Your task to perform on an android device: check out phone information Image 0: 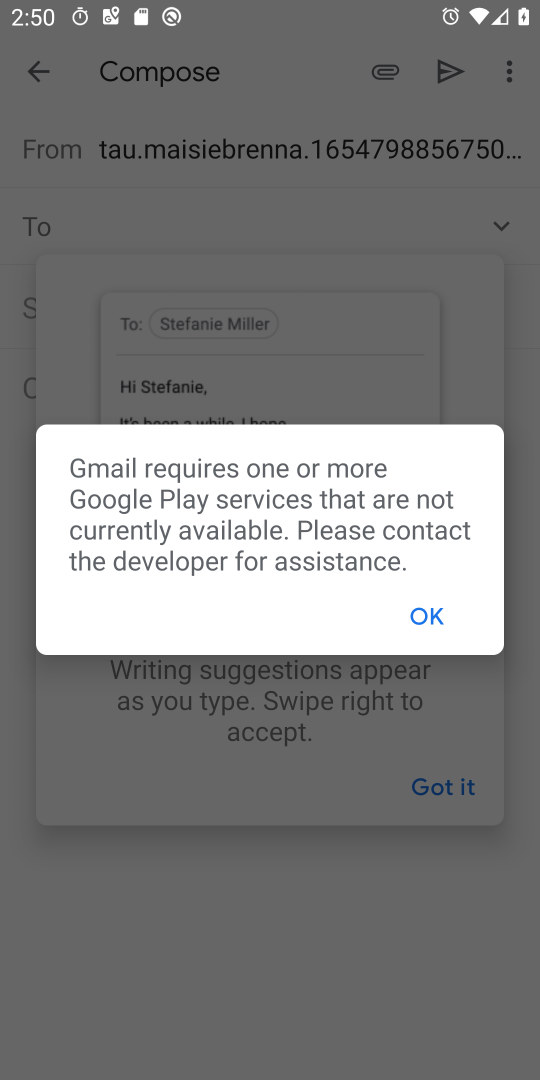
Step 0: press home button
Your task to perform on an android device: check out phone information Image 1: 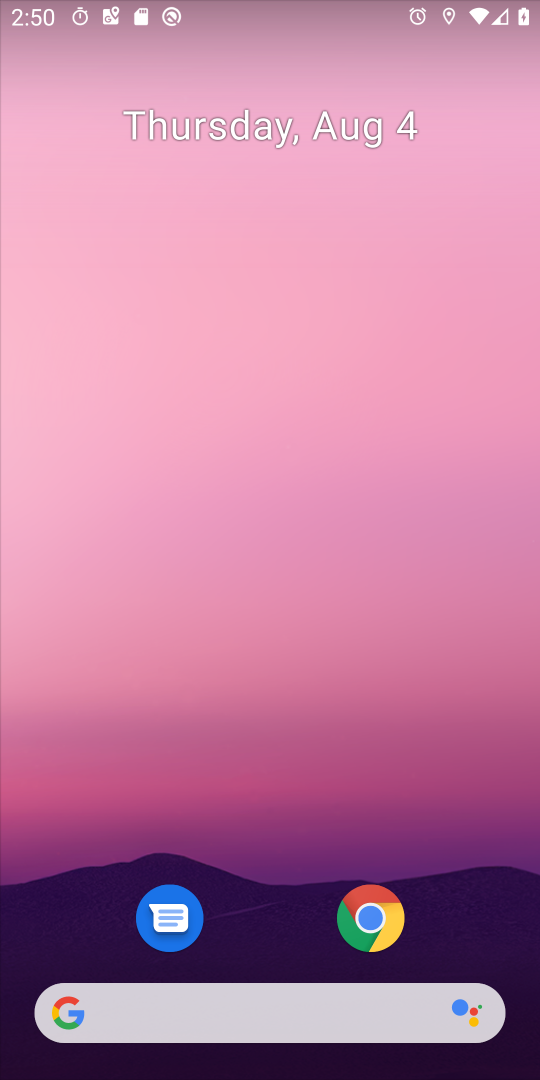
Step 1: drag from (258, 842) to (258, 245)
Your task to perform on an android device: check out phone information Image 2: 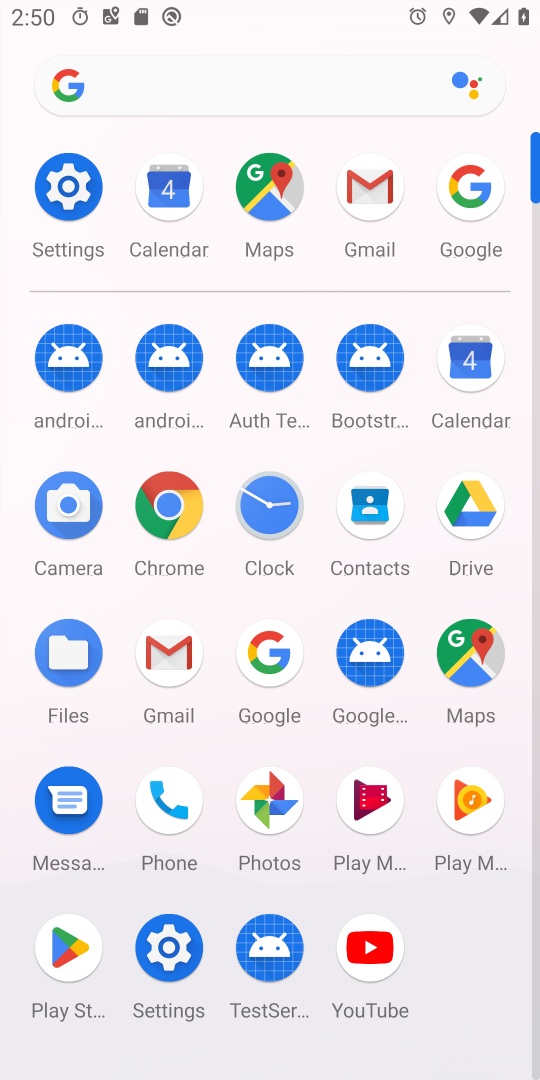
Step 2: click (73, 195)
Your task to perform on an android device: check out phone information Image 3: 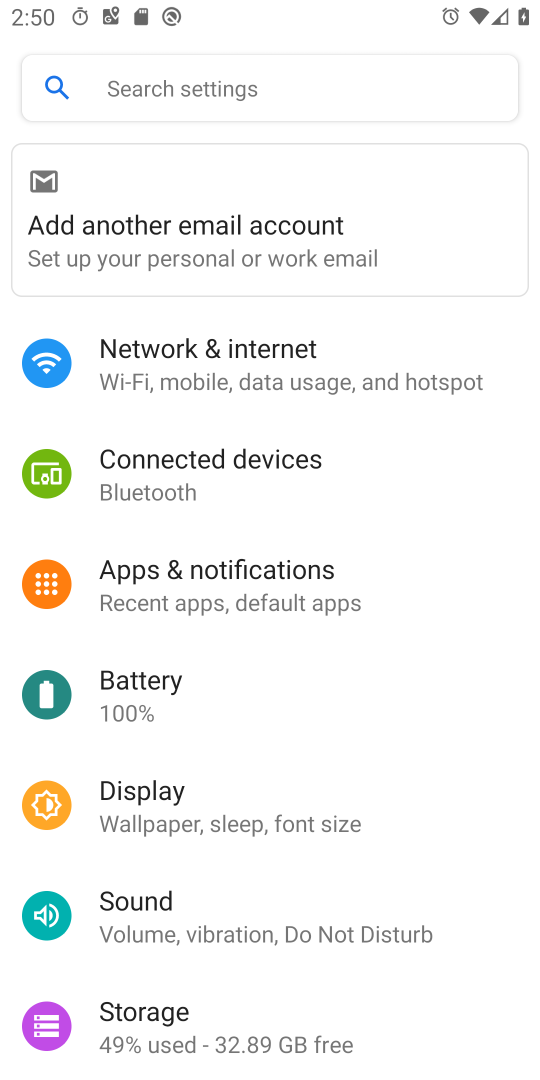
Step 3: drag from (296, 1023) to (269, 399)
Your task to perform on an android device: check out phone information Image 4: 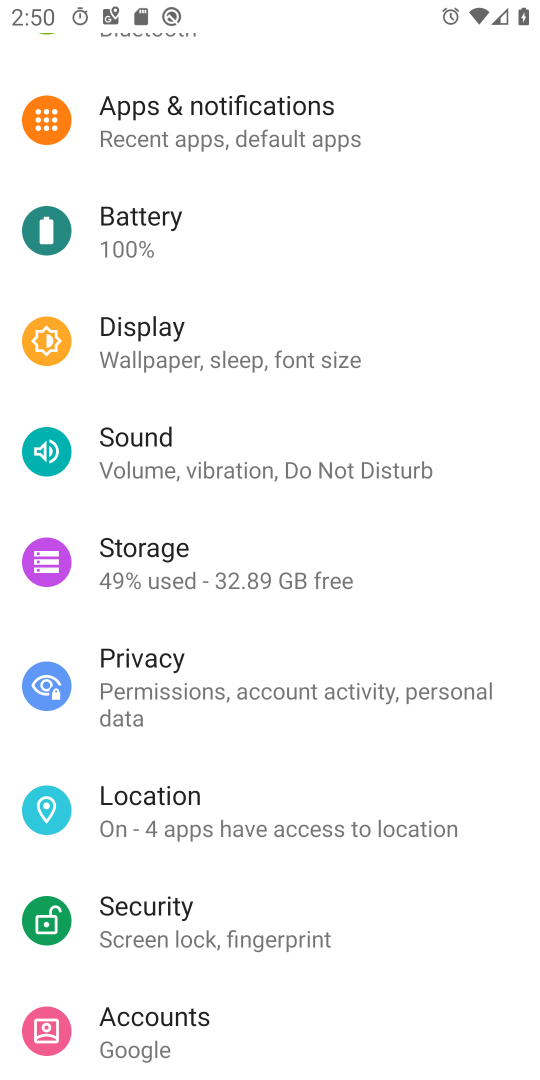
Step 4: drag from (265, 984) to (255, 422)
Your task to perform on an android device: check out phone information Image 5: 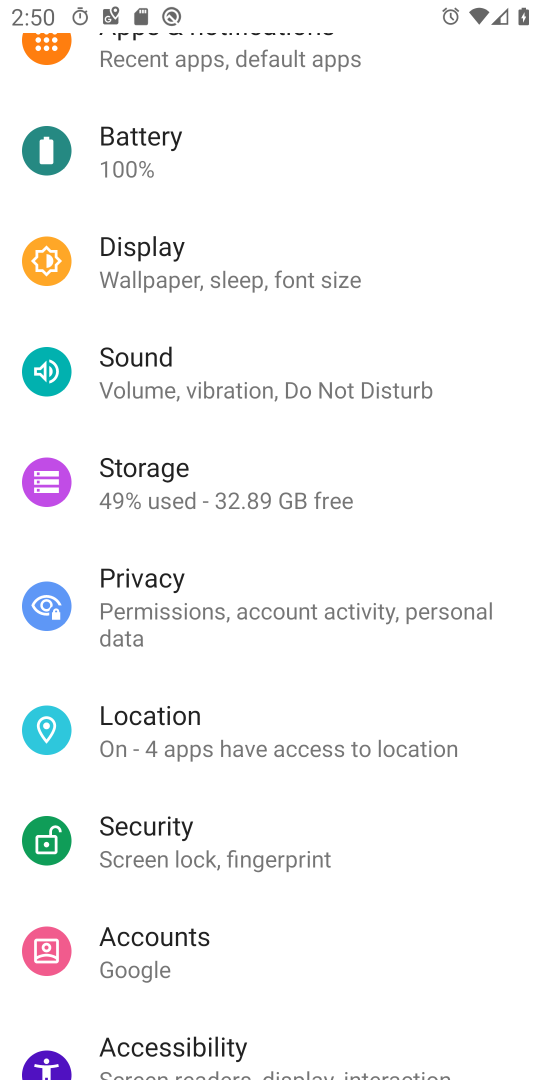
Step 5: drag from (244, 866) to (244, 376)
Your task to perform on an android device: check out phone information Image 6: 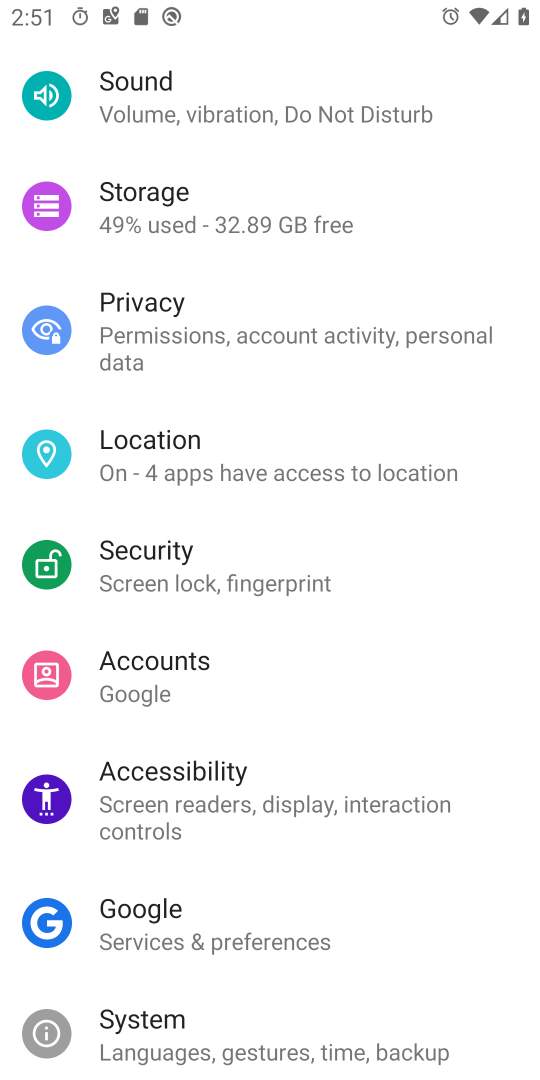
Step 6: drag from (225, 924) to (231, 337)
Your task to perform on an android device: check out phone information Image 7: 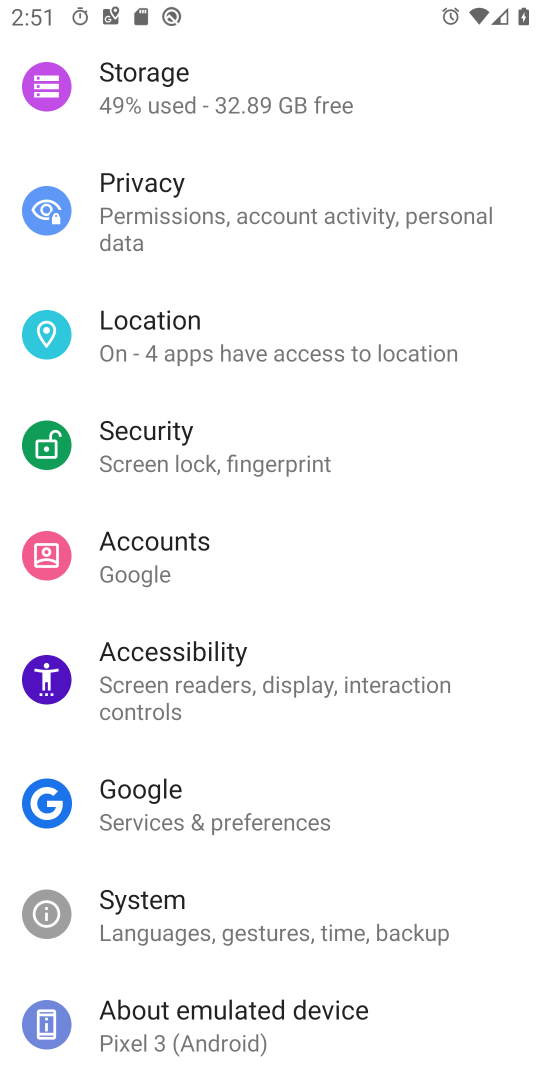
Step 7: click (241, 1007)
Your task to perform on an android device: check out phone information Image 8: 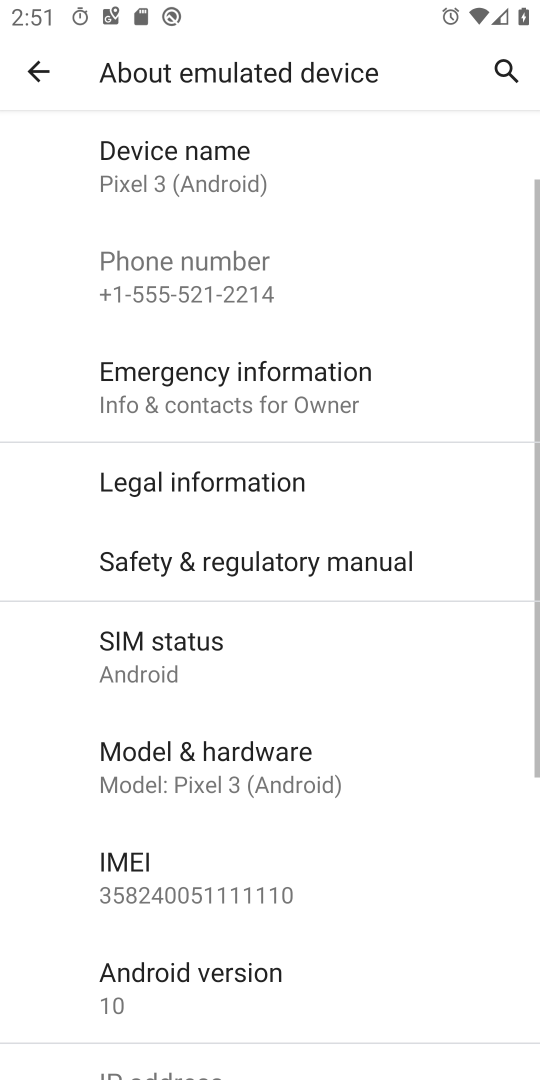
Step 8: task complete